Your task to perform on an android device: find photos in the google photos app Image 0: 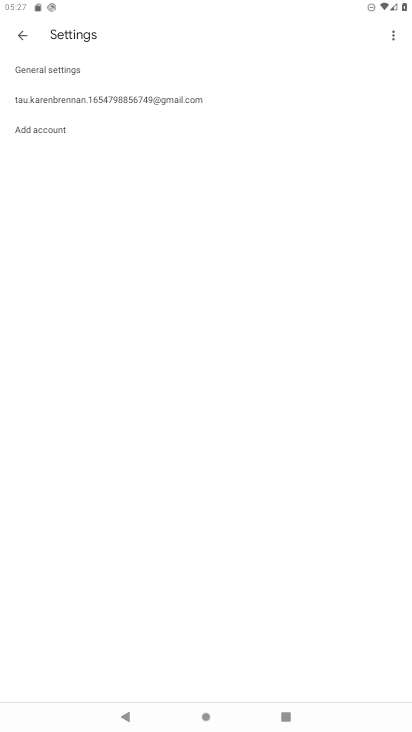
Step 0: press home button
Your task to perform on an android device: find photos in the google photos app Image 1: 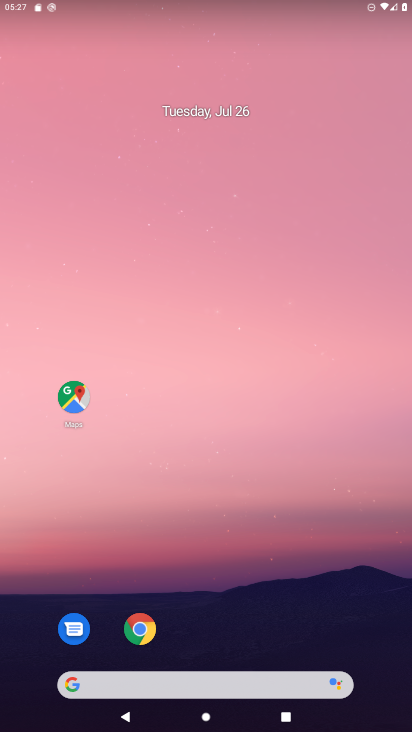
Step 1: drag from (195, 631) to (195, 166)
Your task to perform on an android device: find photos in the google photos app Image 2: 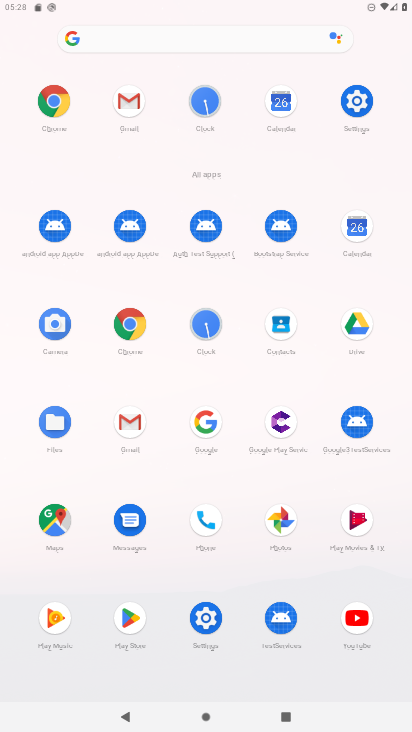
Step 2: click (287, 527)
Your task to perform on an android device: find photos in the google photos app Image 3: 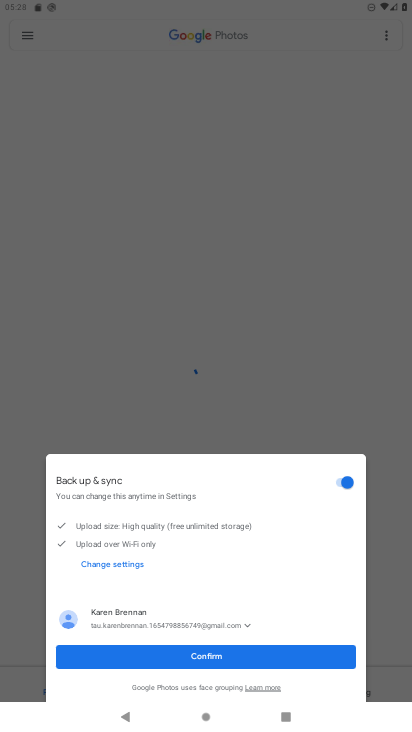
Step 3: click (199, 655)
Your task to perform on an android device: find photos in the google photos app Image 4: 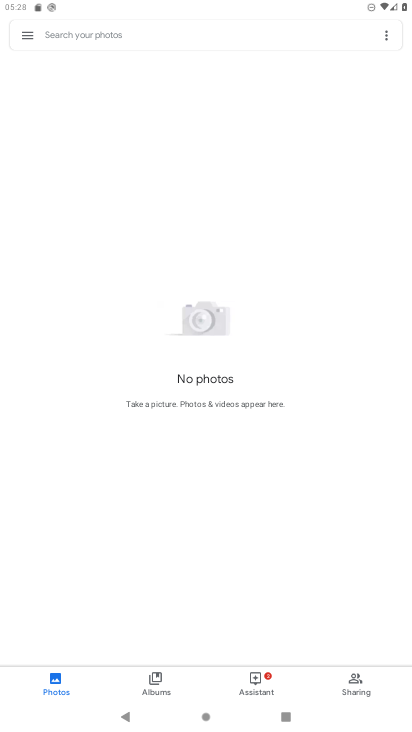
Step 4: task complete